Your task to perform on an android device: Go to Maps Image 0: 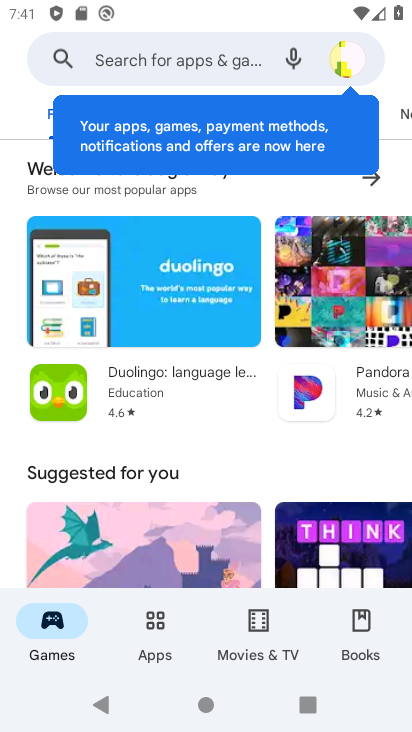
Step 0: press back button
Your task to perform on an android device: Go to Maps Image 1: 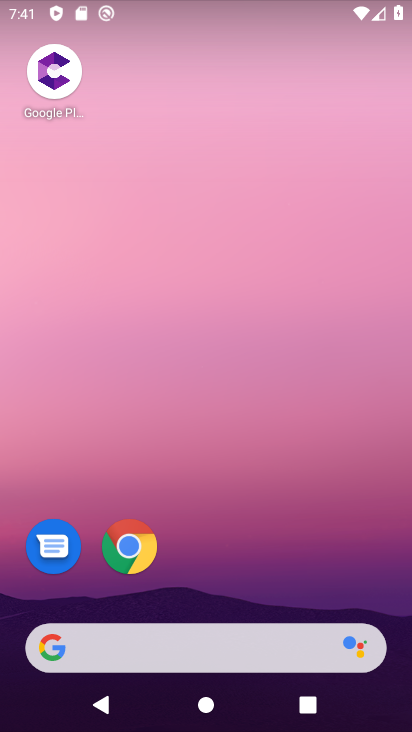
Step 1: drag from (178, 579) to (244, 36)
Your task to perform on an android device: Go to Maps Image 2: 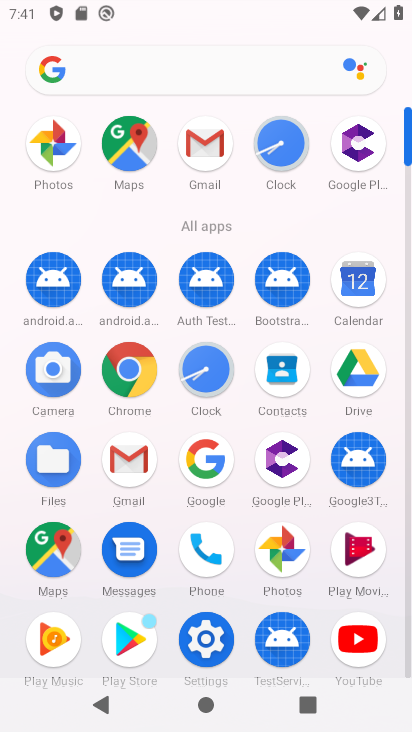
Step 2: click (133, 149)
Your task to perform on an android device: Go to Maps Image 3: 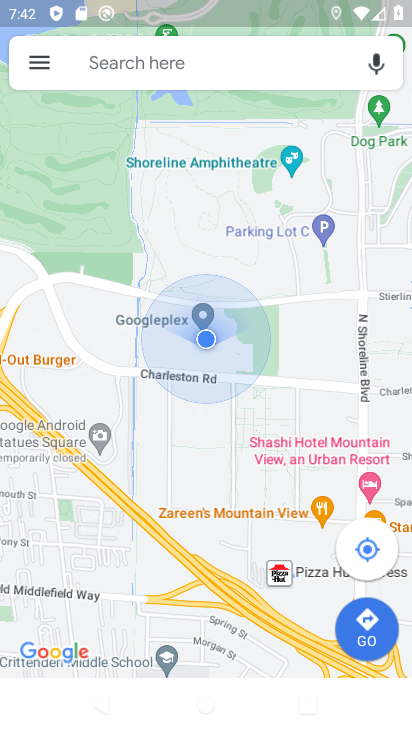
Step 3: task complete